Your task to perform on an android device: search for starred emails in the gmail app Image 0: 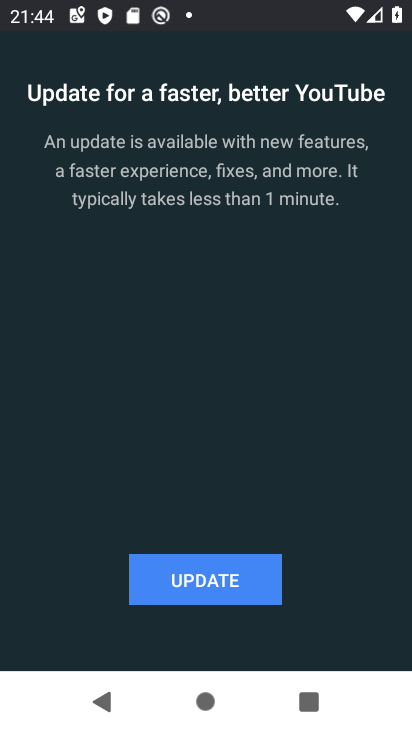
Step 0: press home button
Your task to perform on an android device: search for starred emails in the gmail app Image 1: 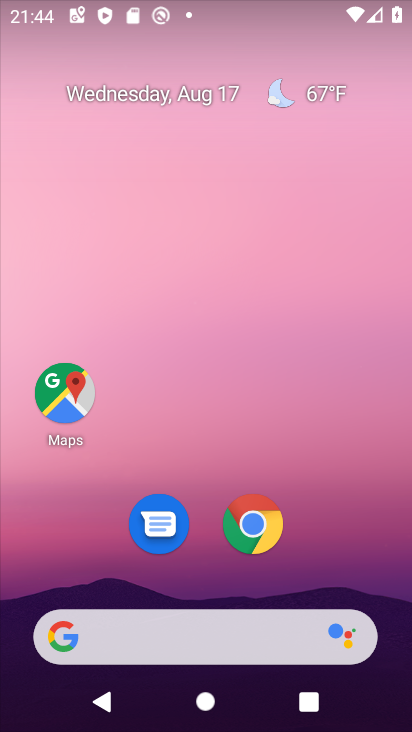
Step 1: drag from (327, 532) to (334, 40)
Your task to perform on an android device: search for starred emails in the gmail app Image 2: 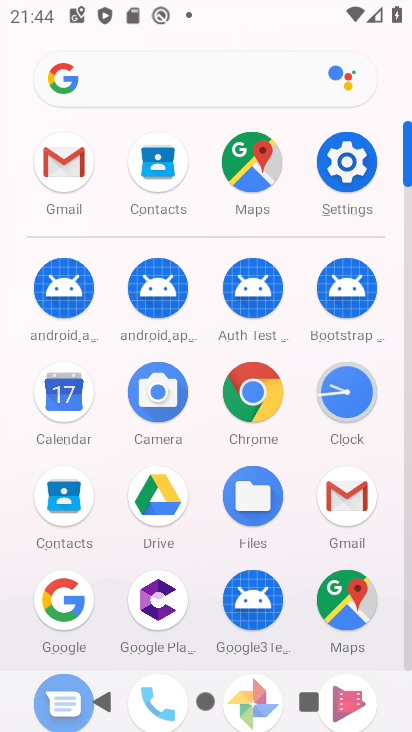
Step 2: click (74, 167)
Your task to perform on an android device: search for starred emails in the gmail app Image 3: 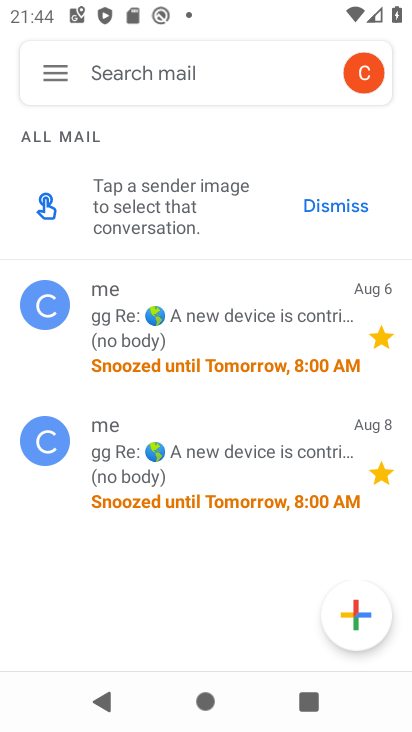
Step 3: click (58, 68)
Your task to perform on an android device: search for starred emails in the gmail app Image 4: 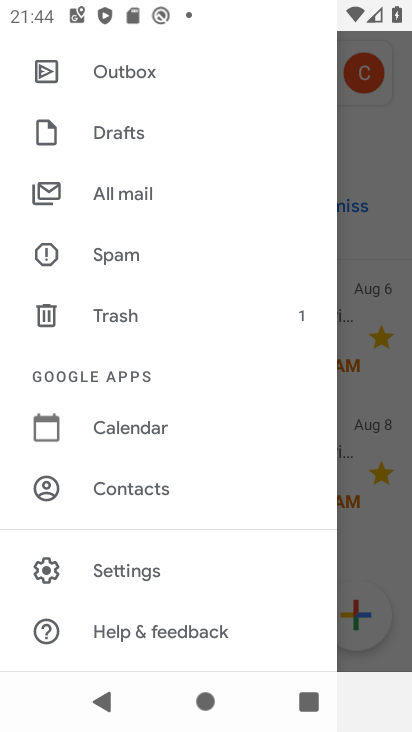
Step 4: drag from (172, 180) to (178, 645)
Your task to perform on an android device: search for starred emails in the gmail app Image 5: 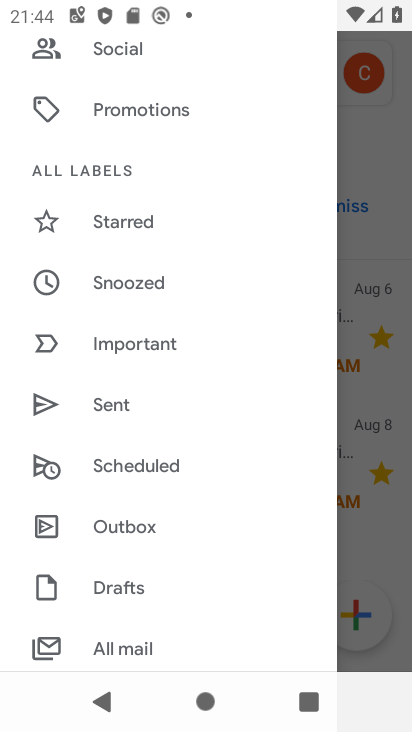
Step 5: click (165, 219)
Your task to perform on an android device: search for starred emails in the gmail app Image 6: 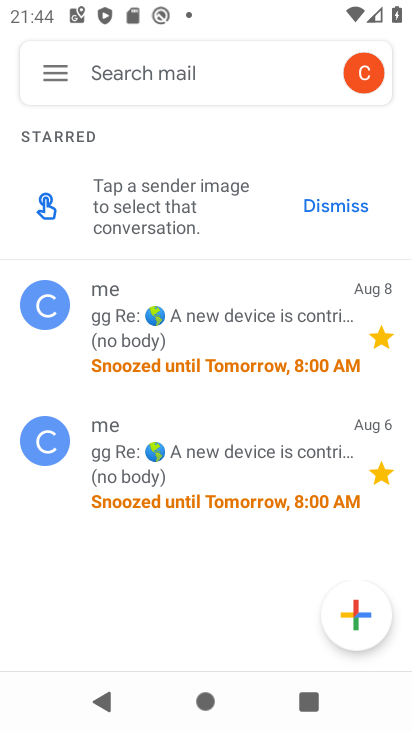
Step 6: task complete